Your task to perform on an android device: Go to sound settings Image 0: 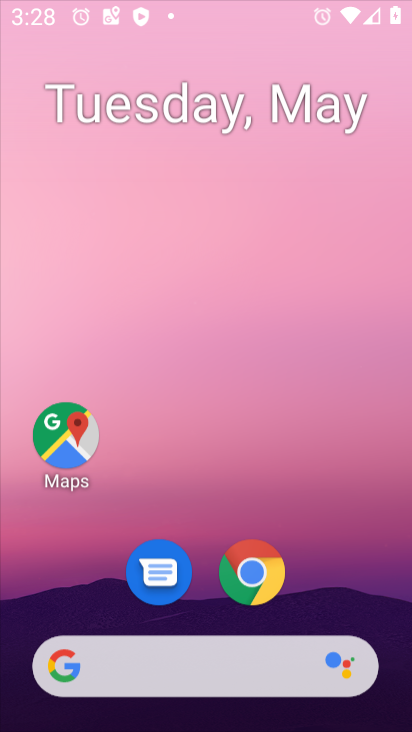
Step 0: drag from (277, 245) to (250, 27)
Your task to perform on an android device: Go to sound settings Image 1: 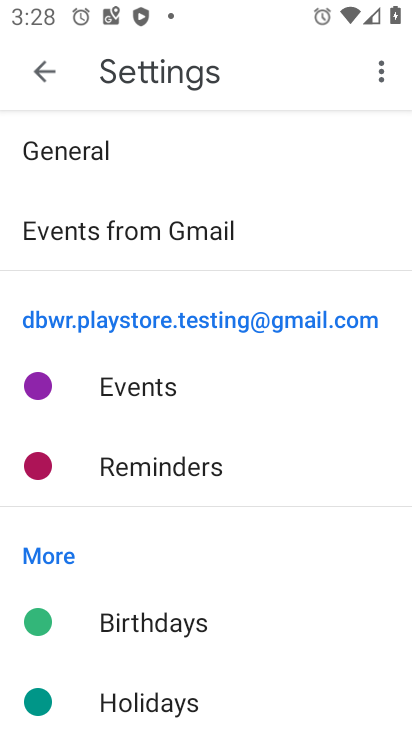
Step 1: press back button
Your task to perform on an android device: Go to sound settings Image 2: 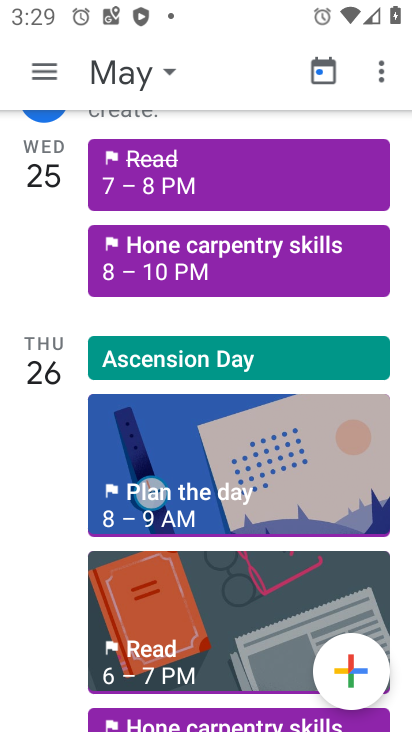
Step 2: press back button
Your task to perform on an android device: Go to sound settings Image 3: 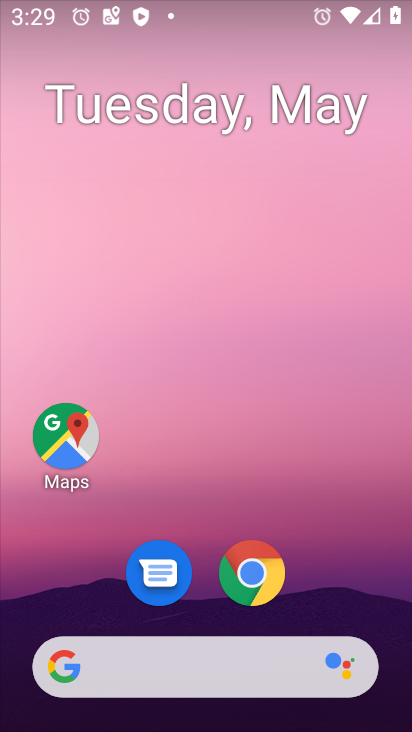
Step 3: drag from (336, 552) to (252, 102)
Your task to perform on an android device: Go to sound settings Image 4: 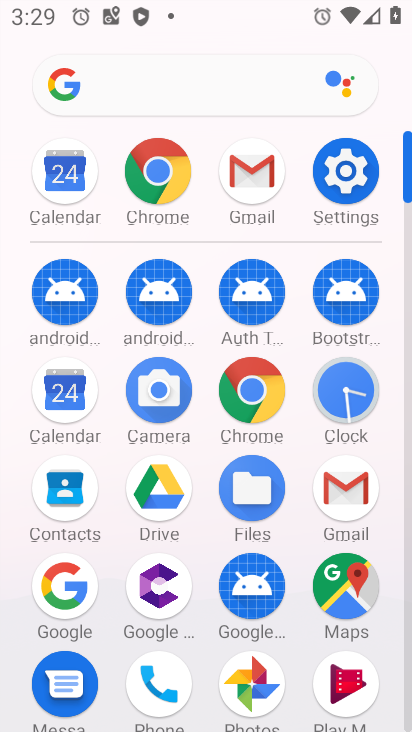
Step 4: click (347, 177)
Your task to perform on an android device: Go to sound settings Image 5: 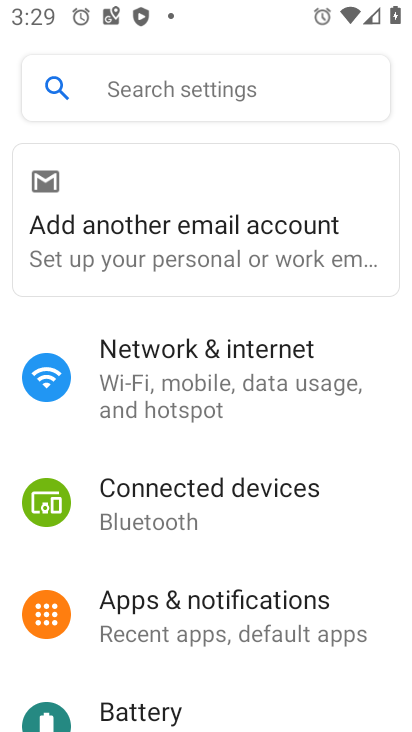
Step 5: drag from (264, 602) to (262, 207)
Your task to perform on an android device: Go to sound settings Image 6: 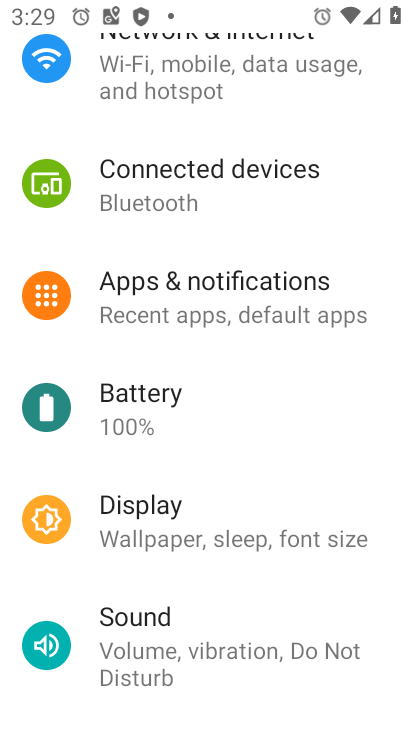
Step 6: drag from (290, 625) to (294, 227)
Your task to perform on an android device: Go to sound settings Image 7: 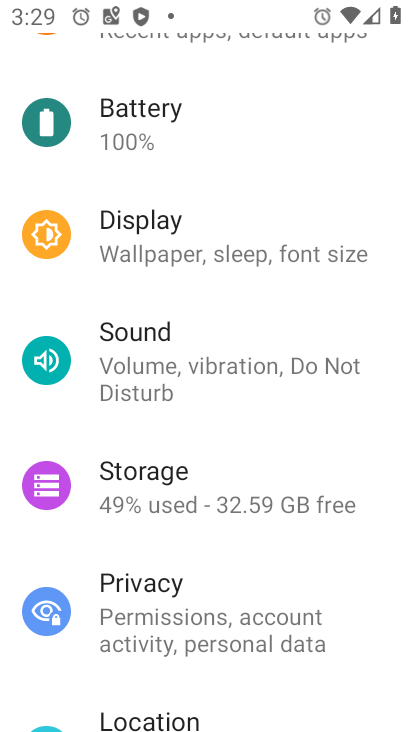
Step 7: click (171, 315)
Your task to perform on an android device: Go to sound settings Image 8: 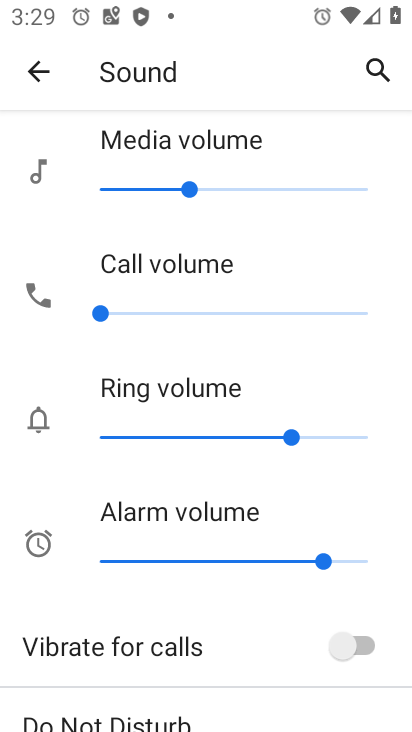
Step 8: task complete